Your task to perform on an android device: see creations saved in the google photos Image 0: 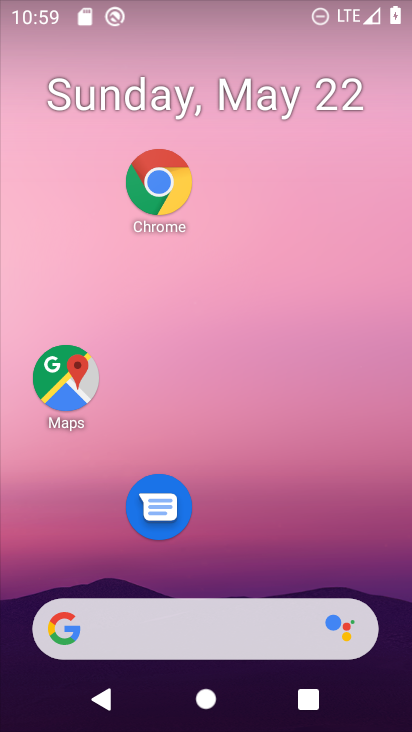
Step 0: drag from (247, 693) to (212, 165)
Your task to perform on an android device: see creations saved in the google photos Image 1: 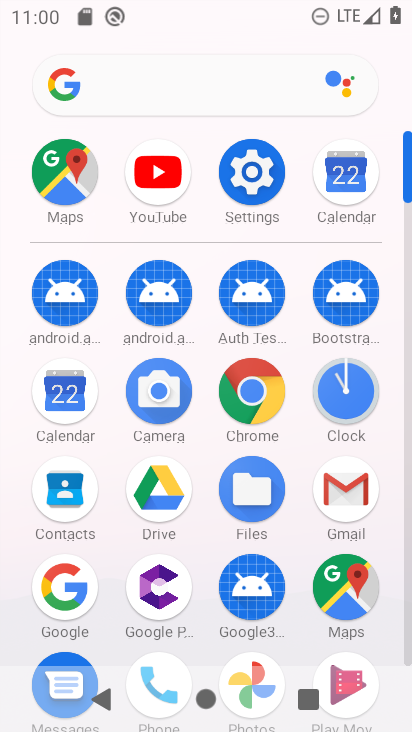
Step 1: click (246, 666)
Your task to perform on an android device: see creations saved in the google photos Image 2: 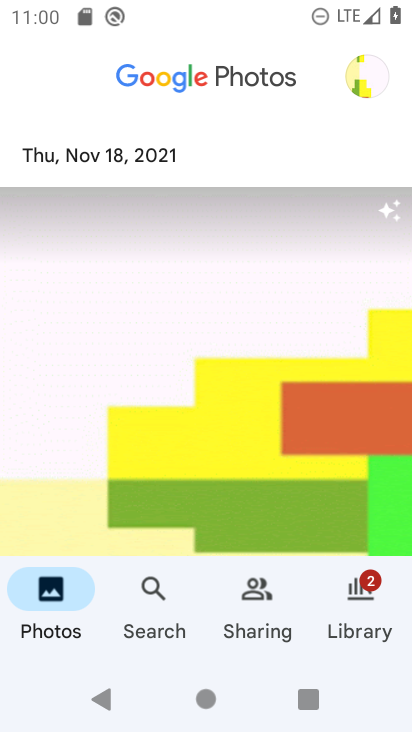
Step 2: click (142, 603)
Your task to perform on an android device: see creations saved in the google photos Image 3: 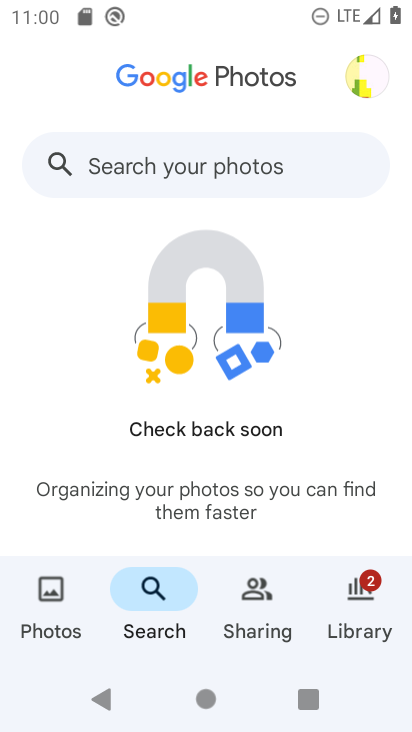
Step 3: drag from (262, 571) to (235, 154)
Your task to perform on an android device: see creations saved in the google photos Image 4: 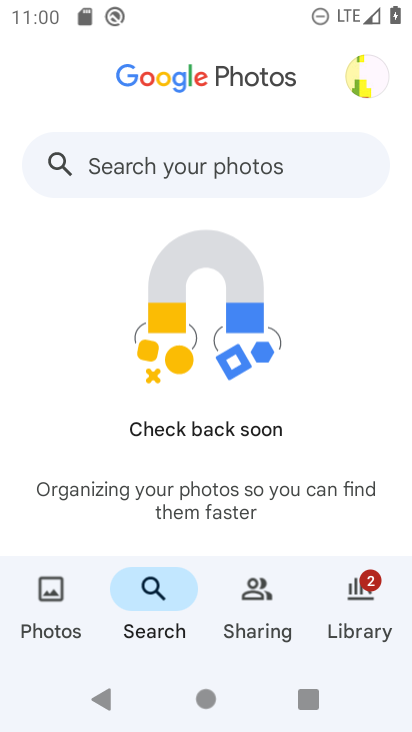
Step 4: drag from (203, 530) to (197, 22)
Your task to perform on an android device: see creations saved in the google photos Image 5: 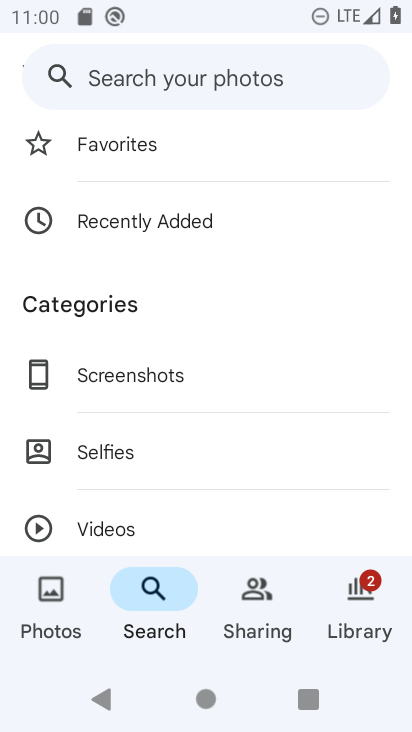
Step 5: drag from (159, 483) to (150, 34)
Your task to perform on an android device: see creations saved in the google photos Image 6: 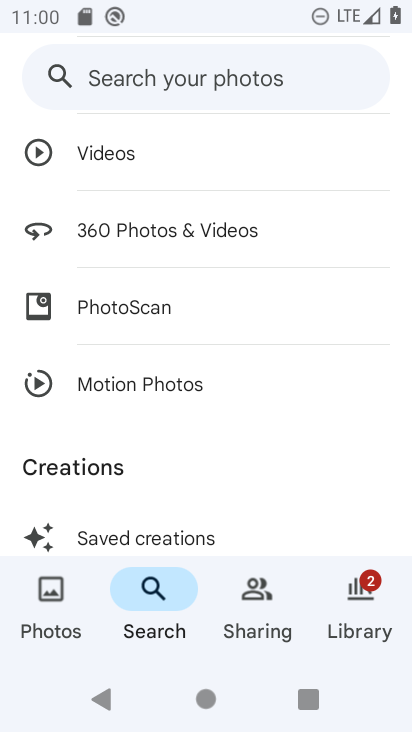
Step 6: click (195, 533)
Your task to perform on an android device: see creations saved in the google photos Image 7: 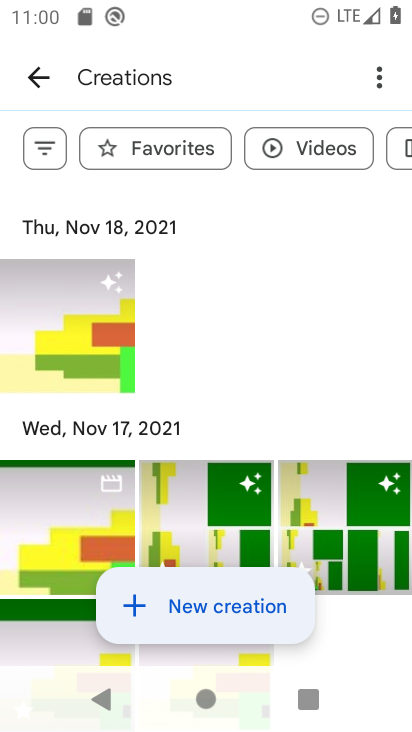
Step 7: task complete